Your task to perform on an android device: turn off wifi Image 0: 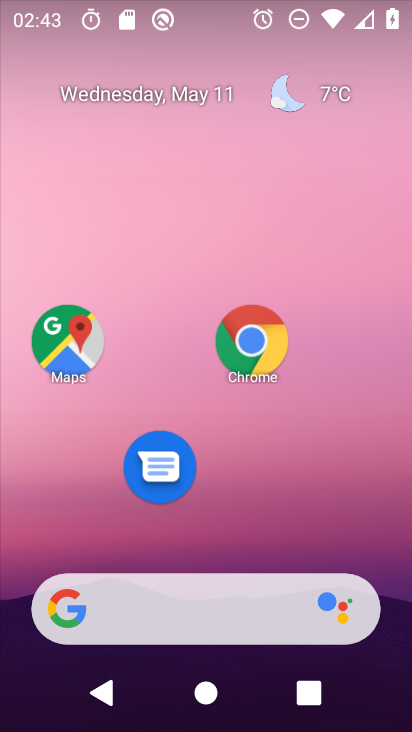
Step 0: drag from (223, 561) to (333, 86)
Your task to perform on an android device: turn off wifi Image 1: 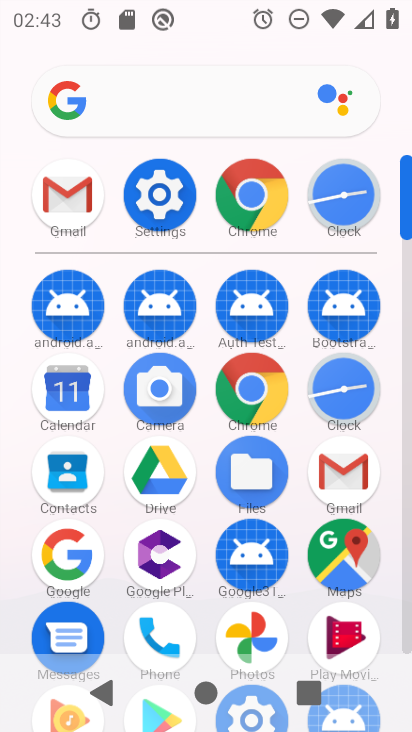
Step 1: click (174, 196)
Your task to perform on an android device: turn off wifi Image 2: 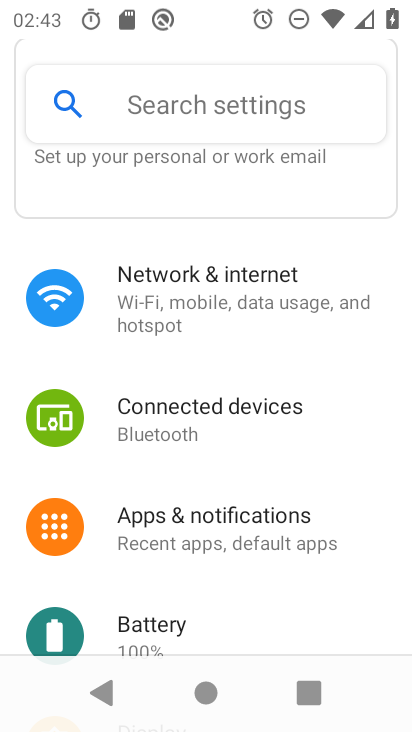
Step 2: drag from (269, 197) to (263, 271)
Your task to perform on an android device: turn off wifi Image 3: 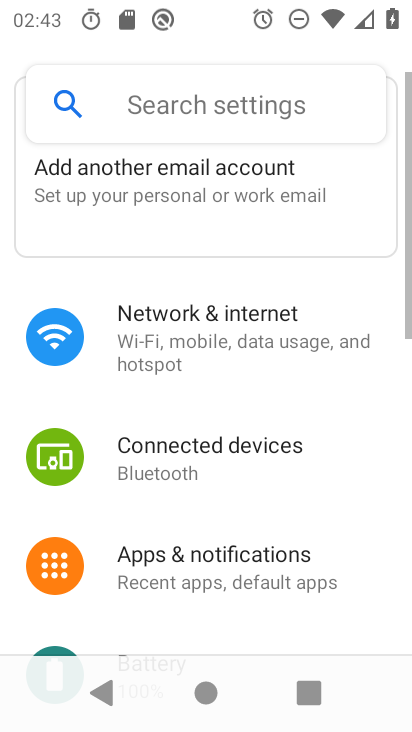
Step 3: click (265, 268)
Your task to perform on an android device: turn off wifi Image 4: 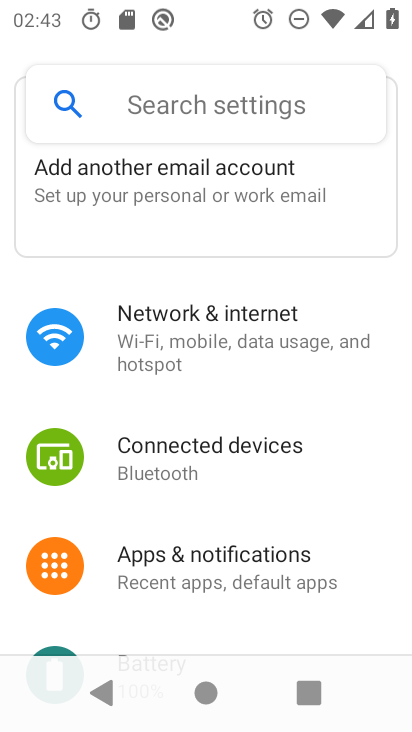
Step 4: click (231, 317)
Your task to perform on an android device: turn off wifi Image 5: 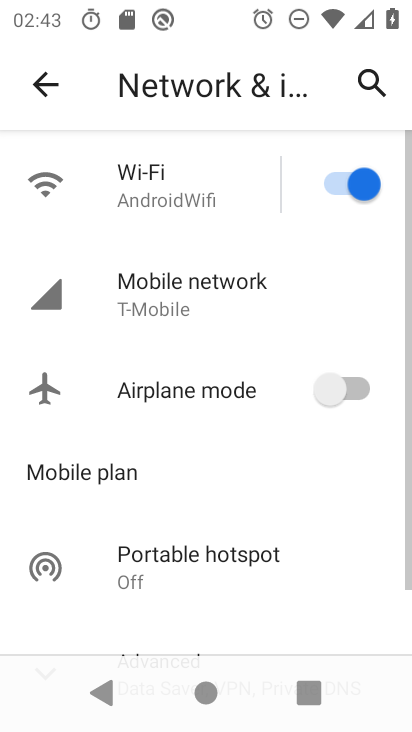
Step 5: click (338, 176)
Your task to perform on an android device: turn off wifi Image 6: 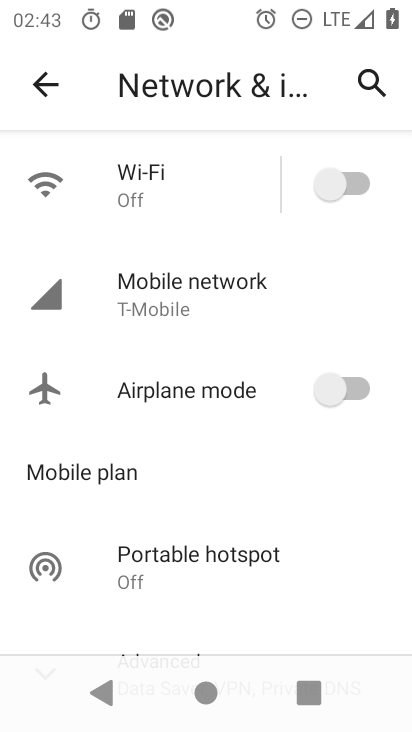
Step 6: task complete